Your task to perform on an android device: see sites visited before in the chrome app Image 0: 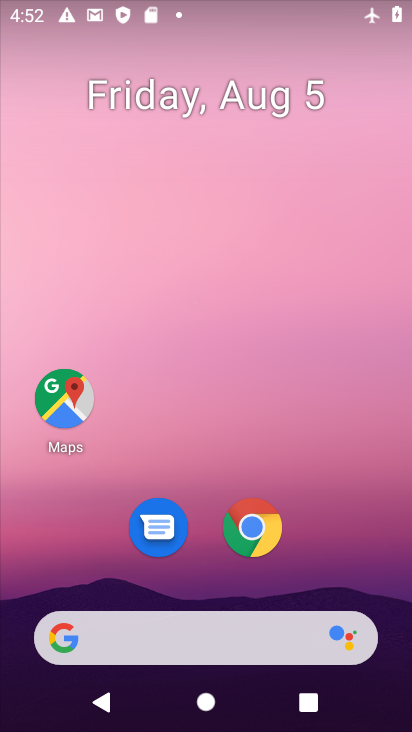
Step 0: drag from (256, 564) to (280, 219)
Your task to perform on an android device: see sites visited before in the chrome app Image 1: 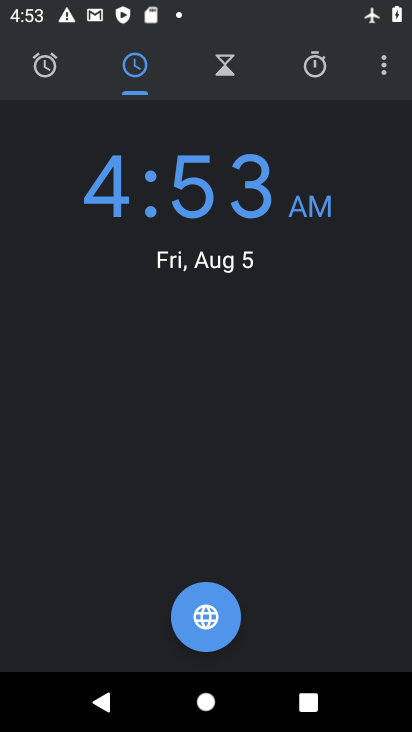
Step 1: drag from (154, 504) to (173, 180)
Your task to perform on an android device: see sites visited before in the chrome app Image 2: 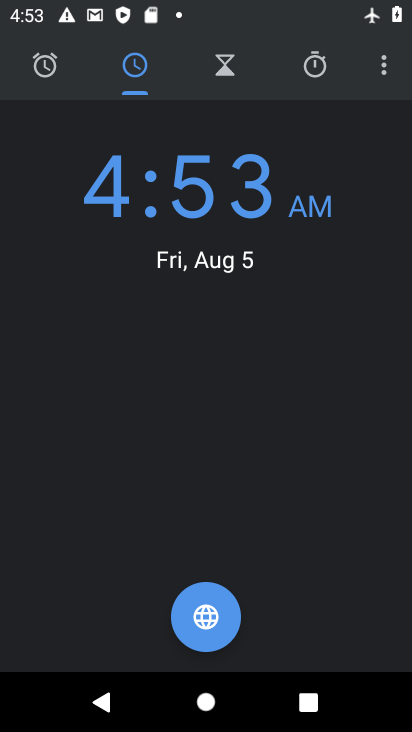
Step 2: drag from (154, 529) to (142, 330)
Your task to perform on an android device: see sites visited before in the chrome app Image 3: 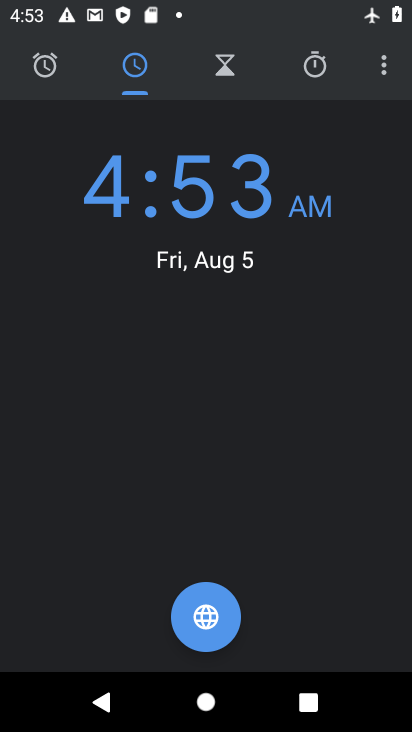
Step 3: click (376, 74)
Your task to perform on an android device: see sites visited before in the chrome app Image 4: 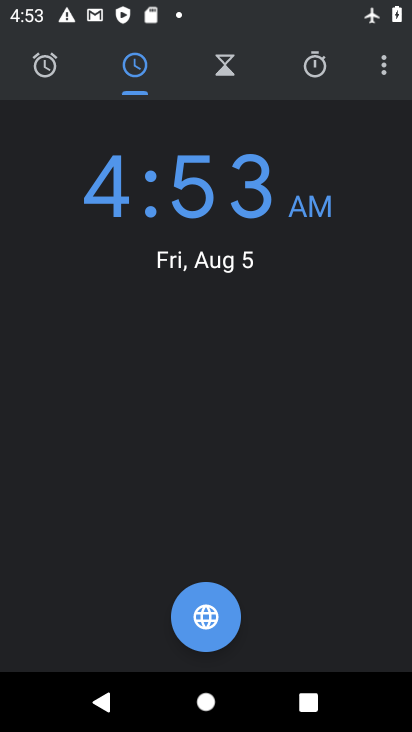
Step 4: click (378, 56)
Your task to perform on an android device: see sites visited before in the chrome app Image 5: 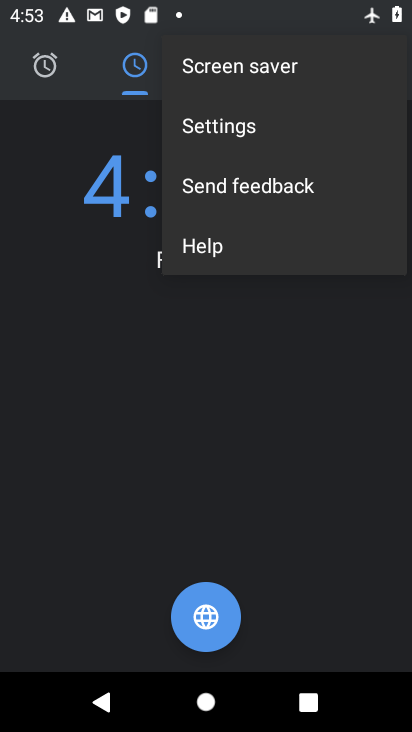
Step 5: click (210, 370)
Your task to perform on an android device: see sites visited before in the chrome app Image 6: 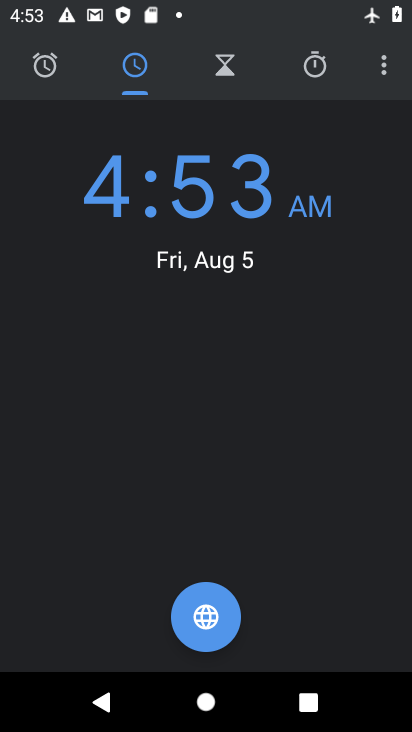
Step 6: press home button
Your task to perform on an android device: see sites visited before in the chrome app Image 7: 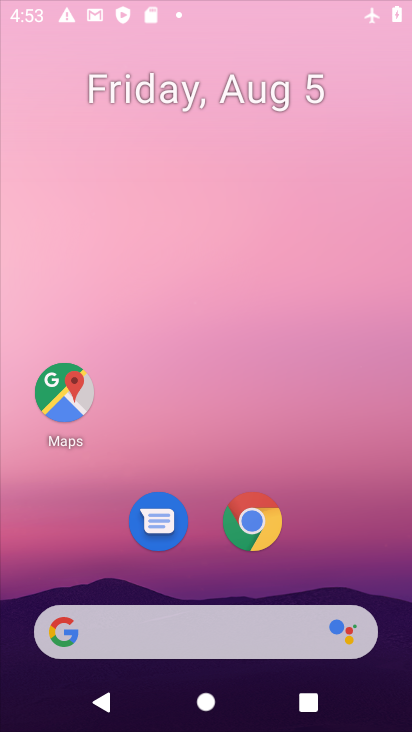
Step 7: drag from (186, 552) to (237, 116)
Your task to perform on an android device: see sites visited before in the chrome app Image 8: 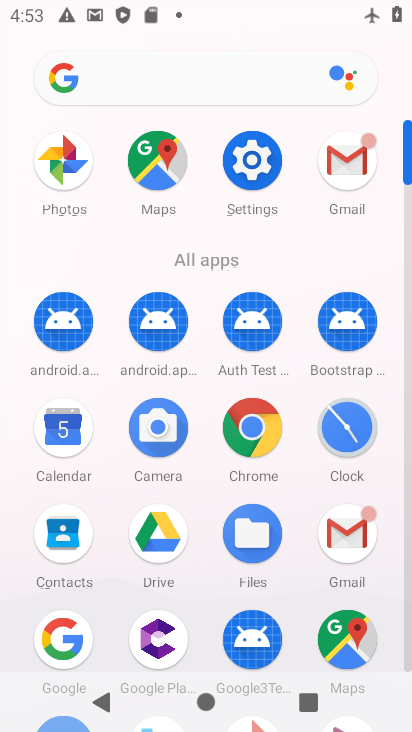
Step 8: click (249, 416)
Your task to perform on an android device: see sites visited before in the chrome app Image 9: 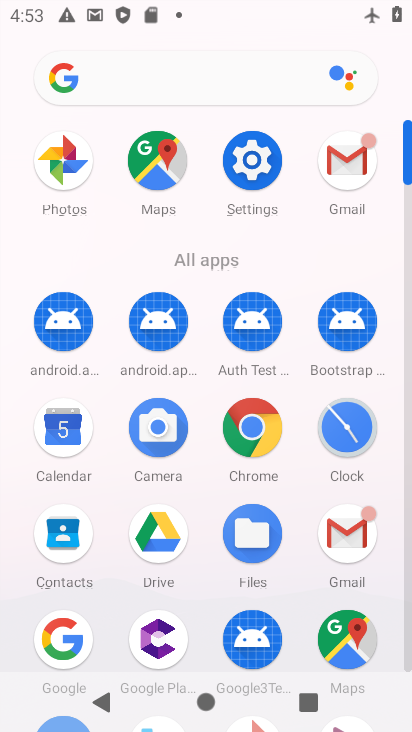
Step 9: click (249, 416)
Your task to perform on an android device: see sites visited before in the chrome app Image 10: 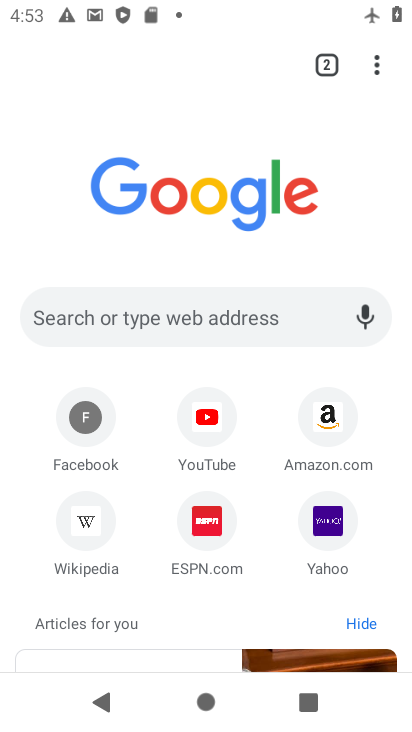
Step 10: click (147, 314)
Your task to perform on an android device: see sites visited before in the chrome app Image 11: 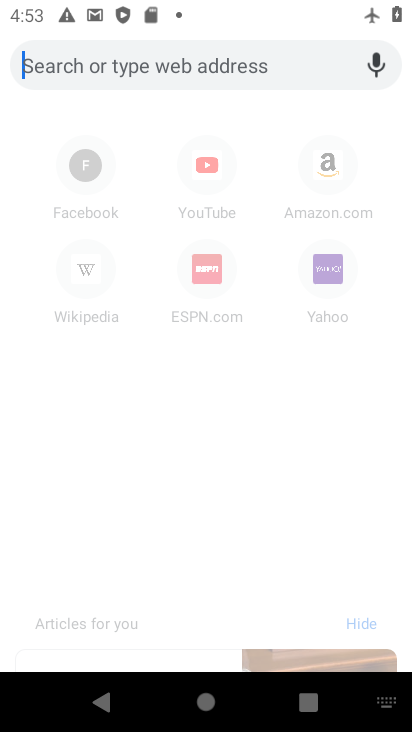
Step 11: click (204, 61)
Your task to perform on an android device: see sites visited before in the chrome app Image 12: 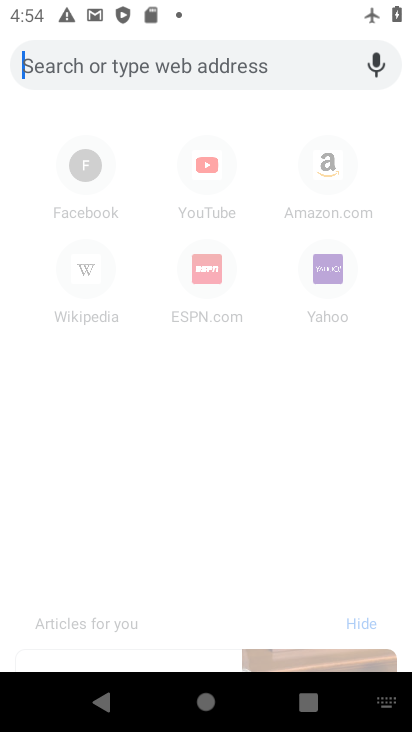
Step 12: click (281, 366)
Your task to perform on an android device: see sites visited before in the chrome app Image 13: 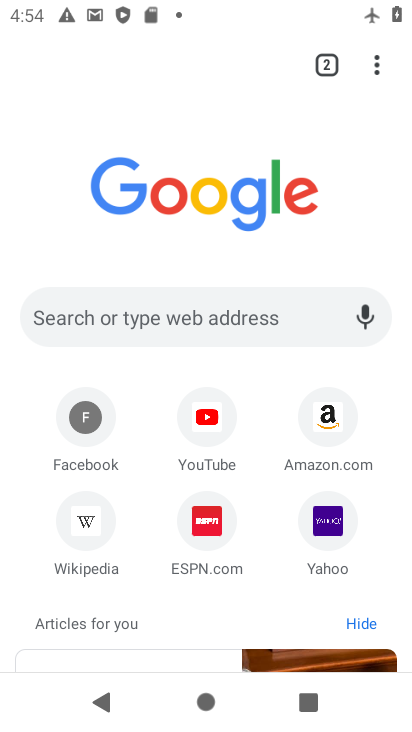
Step 13: click (371, 58)
Your task to perform on an android device: see sites visited before in the chrome app Image 14: 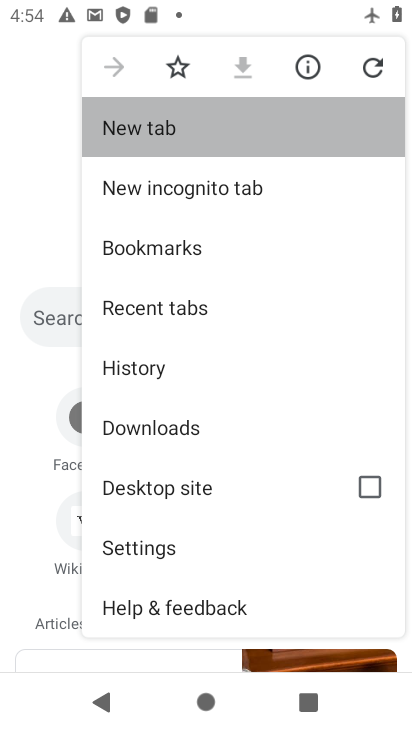
Step 14: drag from (363, 86) to (265, 267)
Your task to perform on an android device: see sites visited before in the chrome app Image 15: 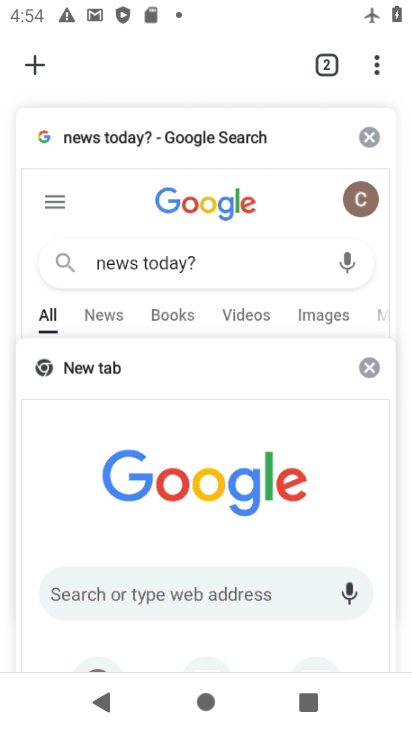
Step 15: drag from (369, 60) to (180, 360)
Your task to perform on an android device: see sites visited before in the chrome app Image 16: 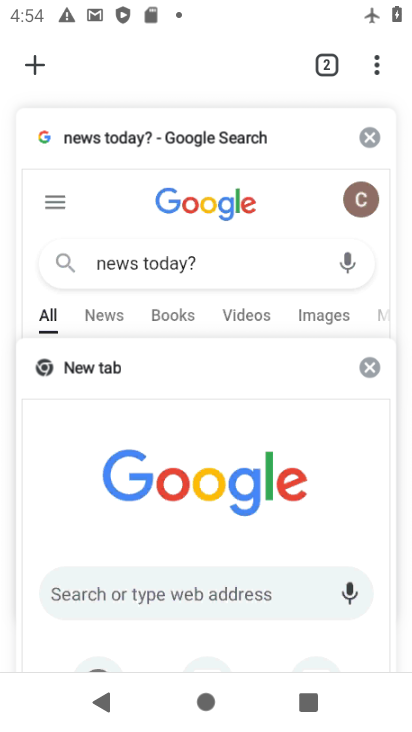
Step 16: click (178, 387)
Your task to perform on an android device: see sites visited before in the chrome app Image 17: 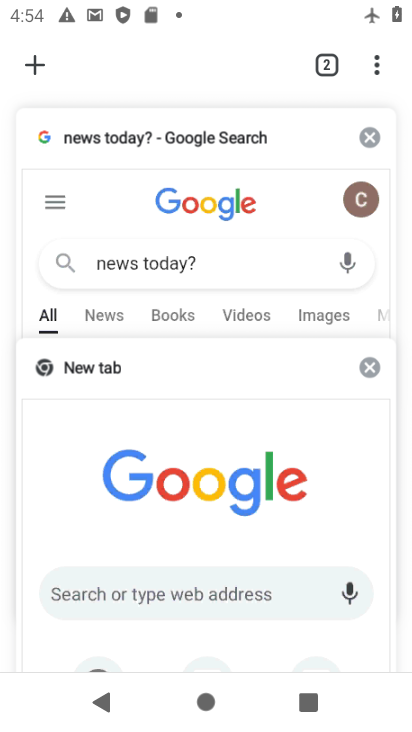
Step 17: click (151, 407)
Your task to perform on an android device: see sites visited before in the chrome app Image 18: 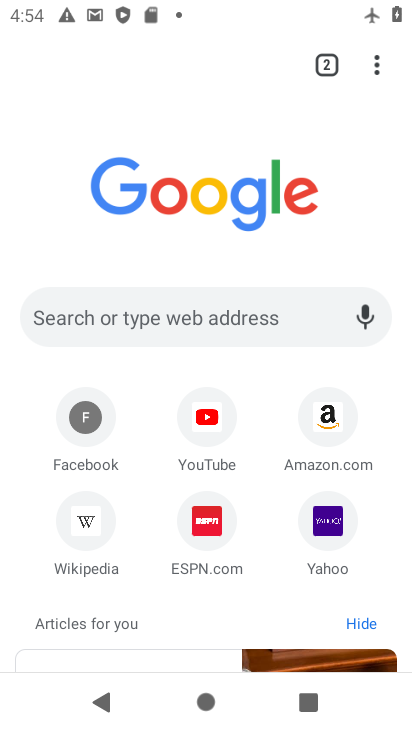
Step 18: click (150, 407)
Your task to perform on an android device: see sites visited before in the chrome app Image 19: 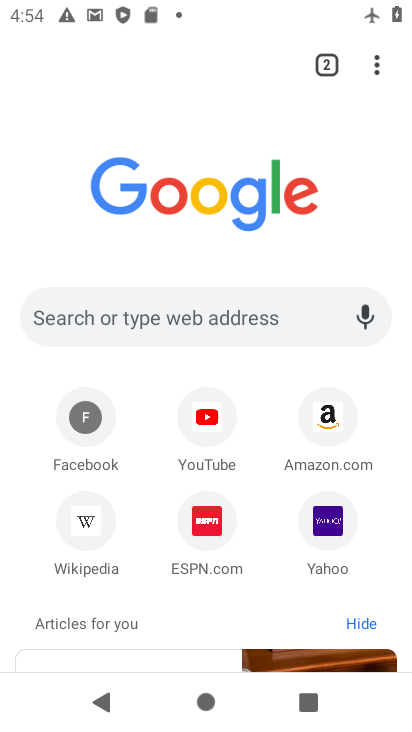
Step 19: click (155, 391)
Your task to perform on an android device: see sites visited before in the chrome app Image 20: 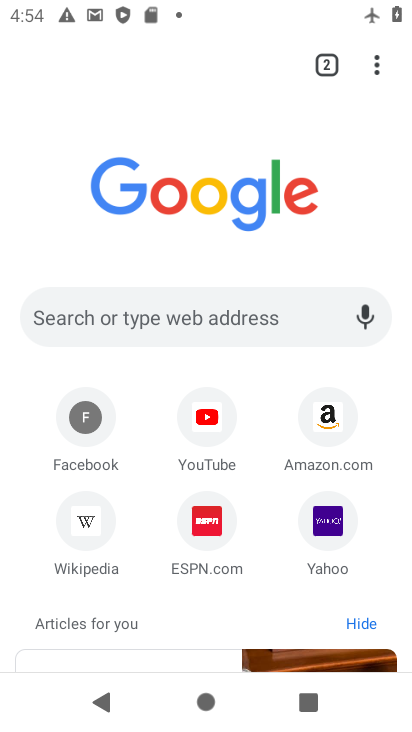
Step 20: click (186, 393)
Your task to perform on an android device: see sites visited before in the chrome app Image 21: 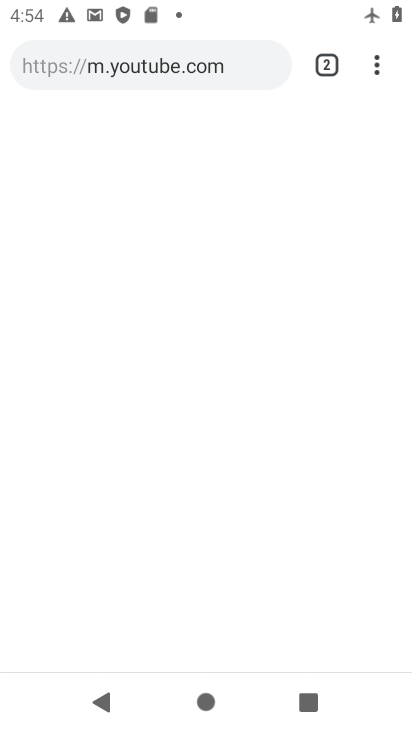
Step 21: click (159, 401)
Your task to perform on an android device: see sites visited before in the chrome app Image 22: 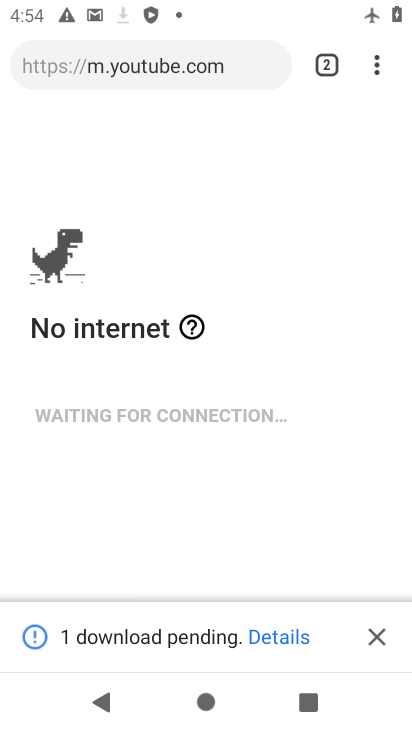
Step 22: drag from (307, 177) to (265, 258)
Your task to perform on an android device: see sites visited before in the chrome app Image 23: 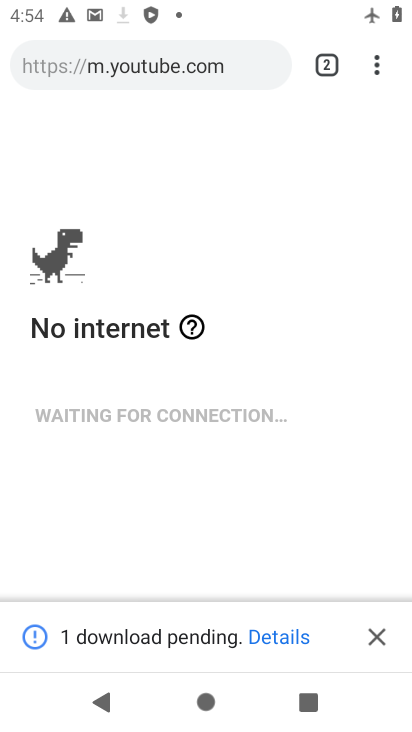
Step 23: click (154, 510)
Your task to perform on an android device: see sites visited before in the chrome app Image 24: 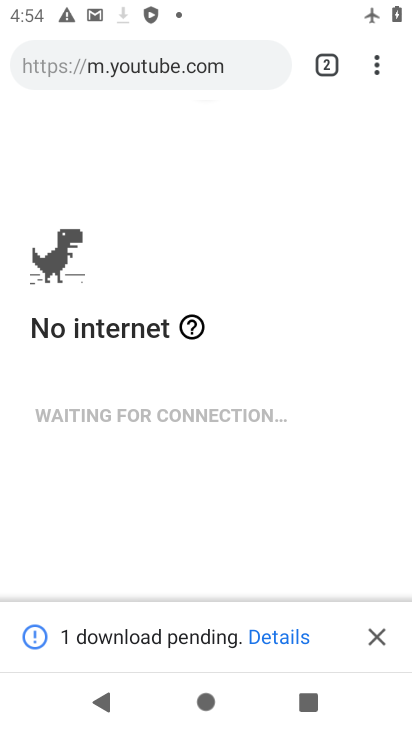
Step 24: click (243, 289)
Your task to perform on an android device: see sites visited before in the chrome app Image 25: 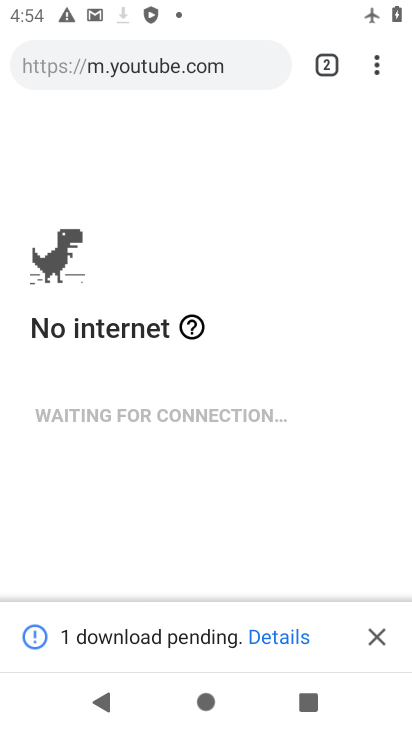
Step 25: drag from (275, 190) to (285, 432)
Your task to perform on an android device: see sites visited before in the chrome app Image 26: 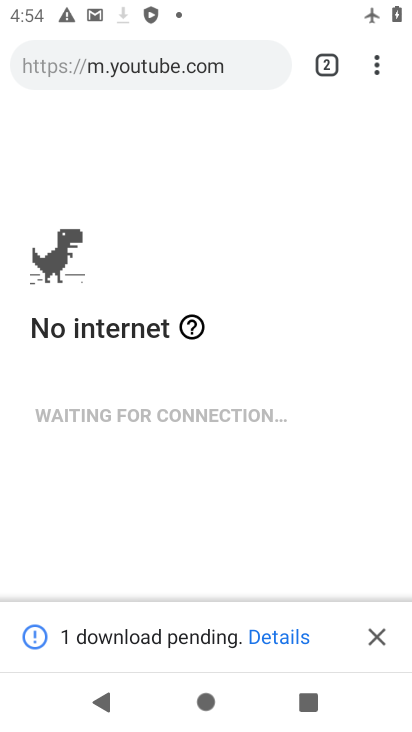
Step 26: drag from (207, 464) to (215, 329)
Your task to perform on an android device: see sites visited before in the chrome app Image 27: 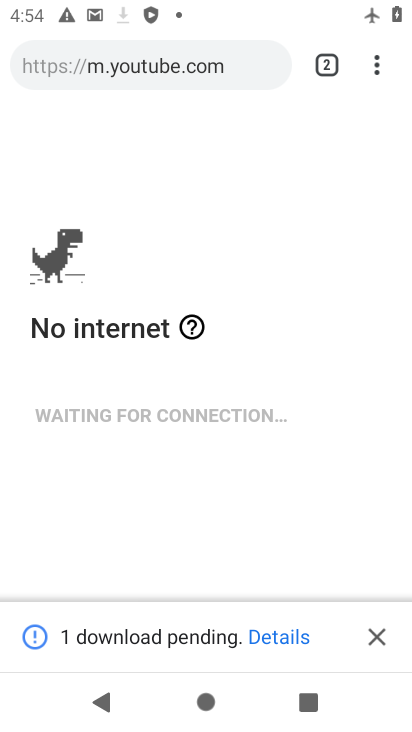
Step 27: drag from (191, 238) to (202, 511)
Your task to perform on an android device: see sites visited before in the chrome app Image 28: 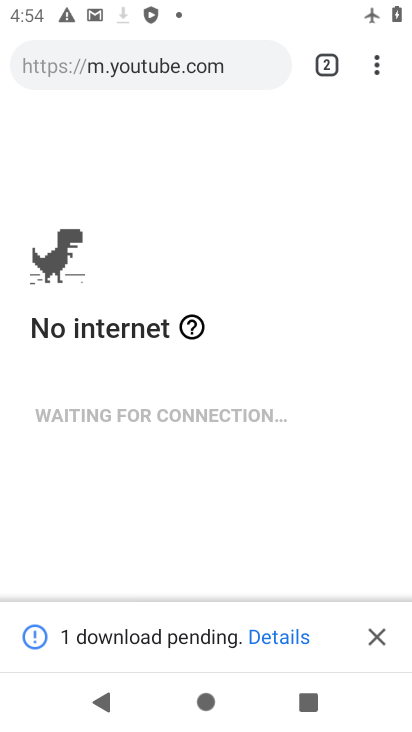
Step 28: drag from (378, 57) to (155, 389)
Your task to perform on an android device: see sites visited before in the chrome app Image 29: 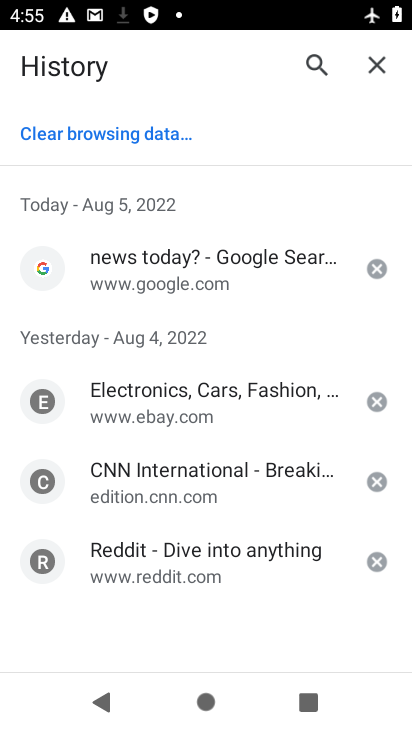
Step 29: click (217, 344)
Your task to perform on an android device: see sites visited before in the chrome app Image 30: 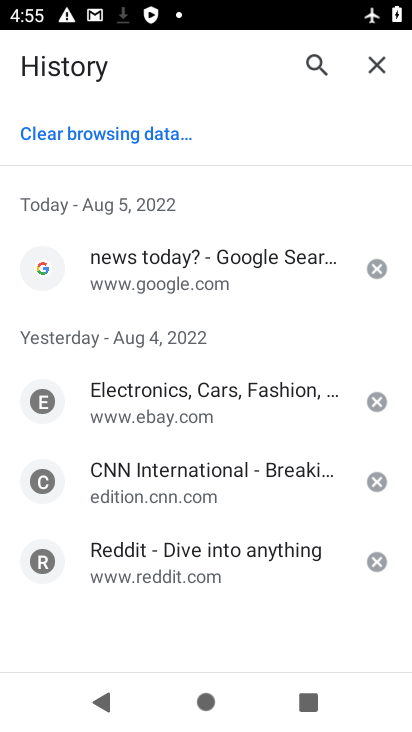
Step 30: task complete